Your task to perform on an android device: find which apps use the phone's location Image 0: 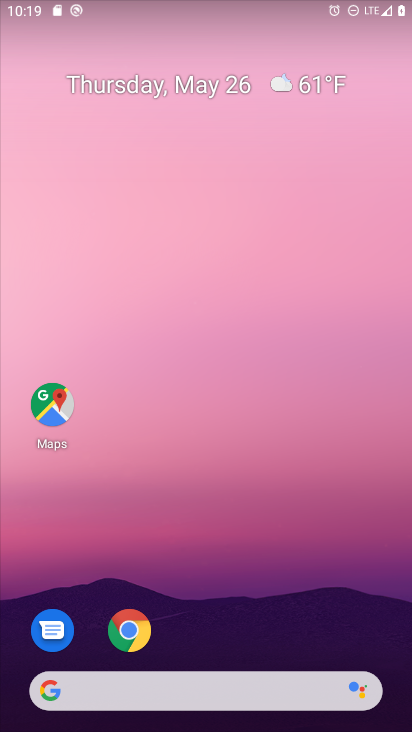
Step 0: drag from (245, 667) to (154, 239)
Your task to perform on an android device: find which apps use the phone's location Image 1: 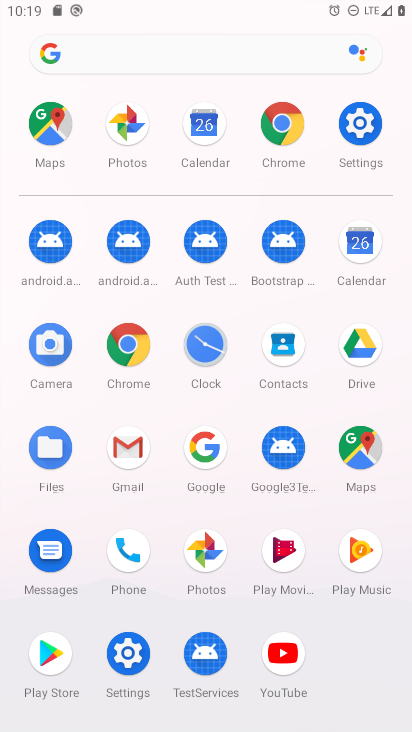
Step 1: click (366, 115)
Your task to perform on an android device: find which apps use the phone's location Image 2: 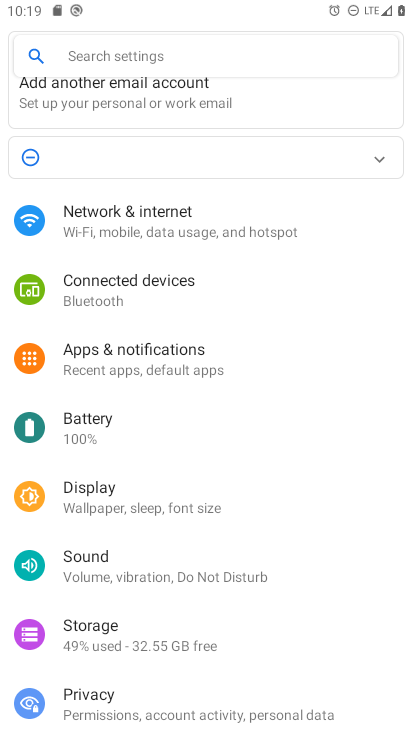
Step 2: drag from (149, 605) to (118, 296)
Your task to perform on an android device: find which apps use the phone's location Image 3: 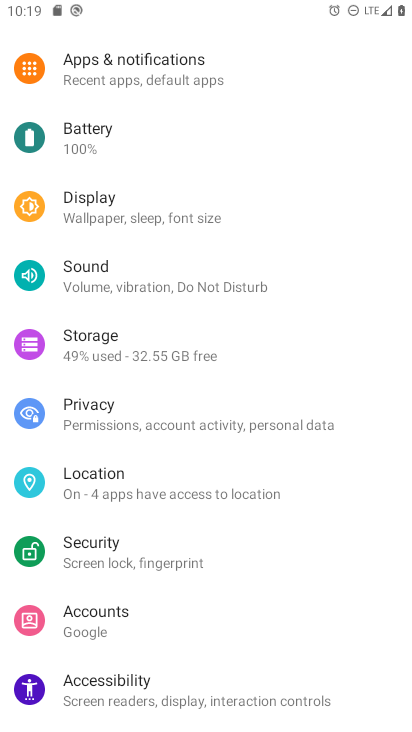
Step 3: click (113, 468)
Your task to perform on an android device: find which apps use the phone's location Image 4: 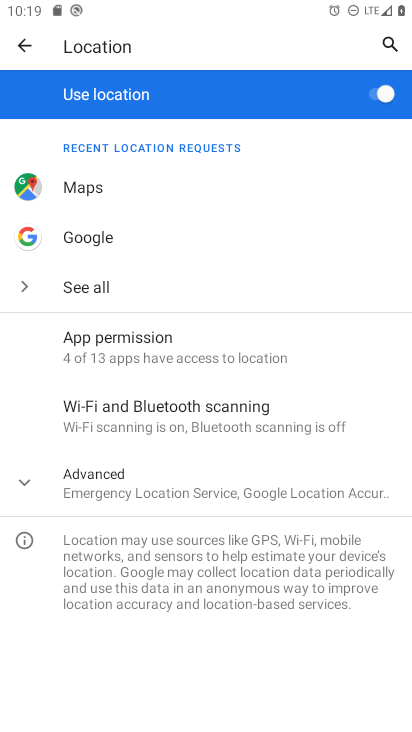
Step 4: click (151, 317)
Your task to perform on an android device: find which apps use the phone's location Image 5: 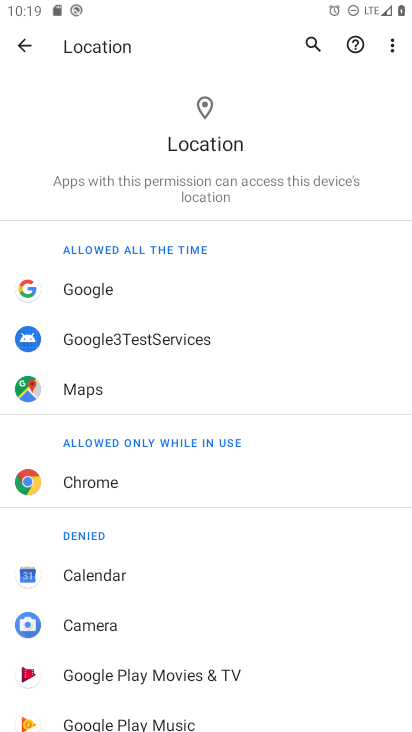
Step 5: task complete